Your task to perform on an android device: refresh tabs in the chrome app Image 0: 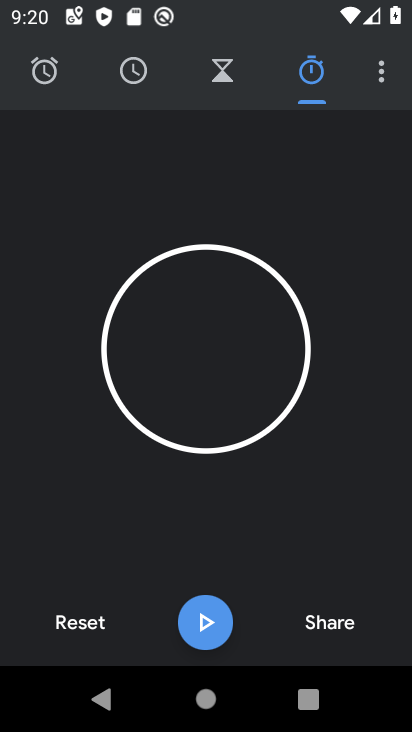
Step 0: press home button
Your task to perform on an android device: refresh tabs in the chrome app Image 1: 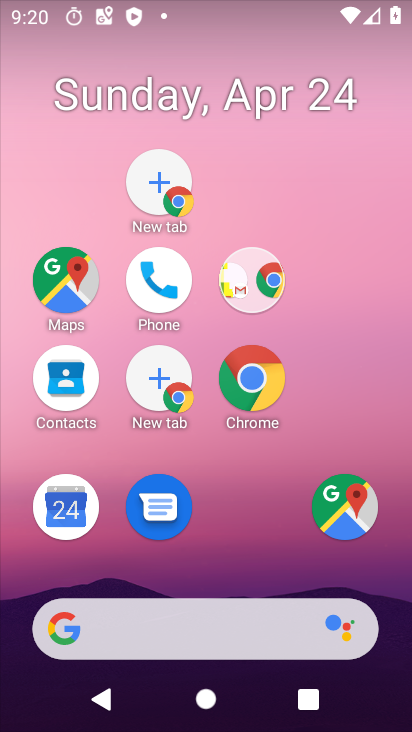
Step 1: drag from (255, 264) to (218, 3)
Your task to perform on an android device: refresh tabs in the chrome app Image 2: 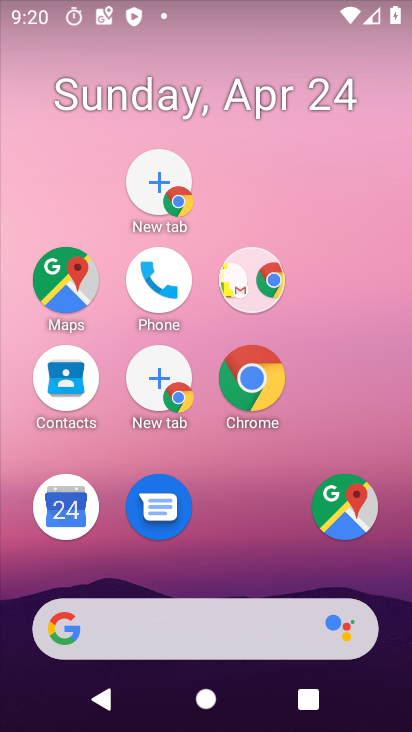
Step 2: click (257, 379)
Your task to perform on an android device: refresh tabs in the chrome app Image 3: 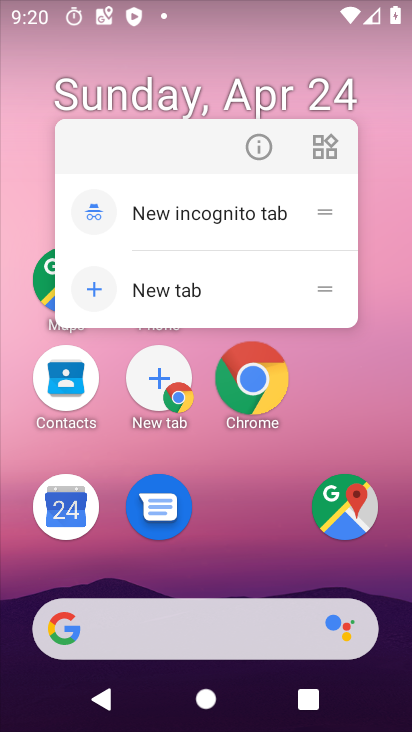
Step 3: click (257, 379)
Your task to perform on an android device: refresh tabs in the chrome app Image 4: 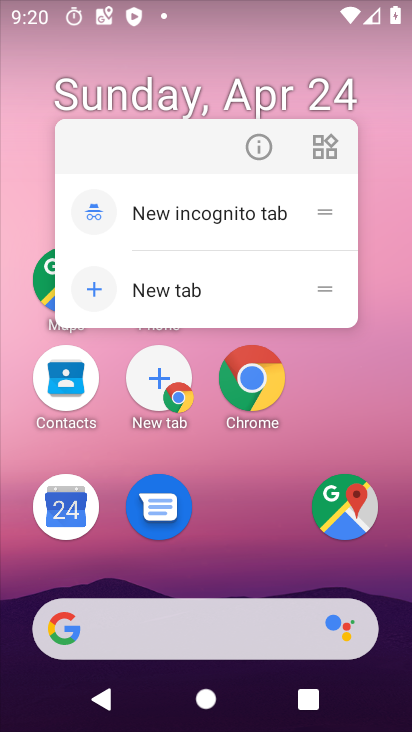
Step 4: click (178, 287)
Your task to perform on an android device: refresh tabs in the chrome app Image 5: 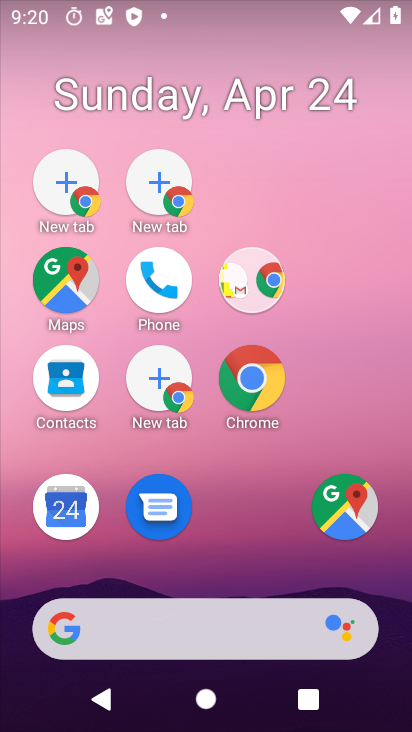
Step 5: drag from (234, 648) to (156, 32)
Your task to perform on an android device: refresh tabs in the chrome app Image 6: 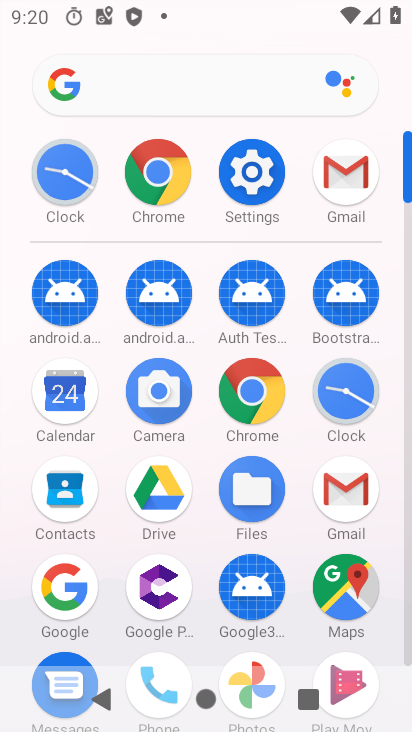
Step 6: click (161, 162)
Your task to perform on an android device: refresh tabs in the chrome app Image 7: 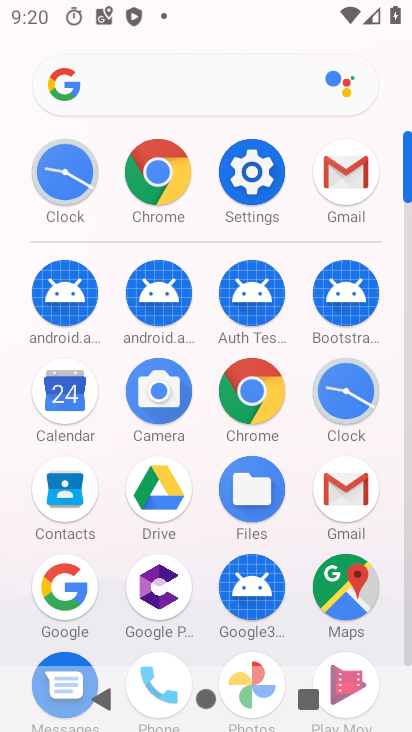
Step 7: click (162, 162)
Your task to perform on an android device: refresh tabs in the chrome app Image 8: 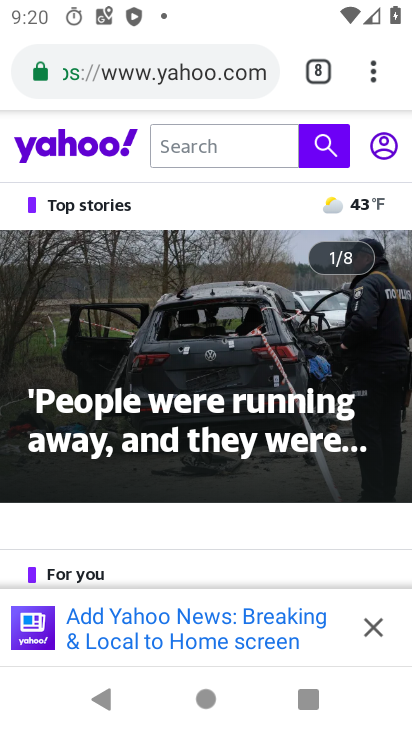
Step 8: drag from (371, 73) to (157, 420)
Your task to perform on an android device: refresh tabs in the chrome app Image 9: 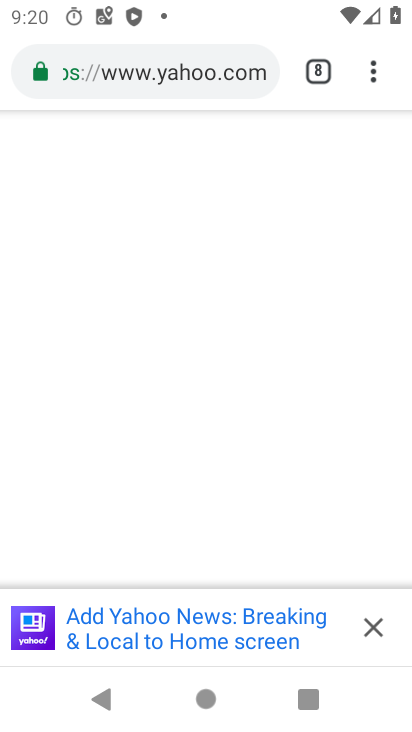
Step 9: click (157, 420)
Your task to perform on an android device: refresh tabs in the chrome app Image 10: 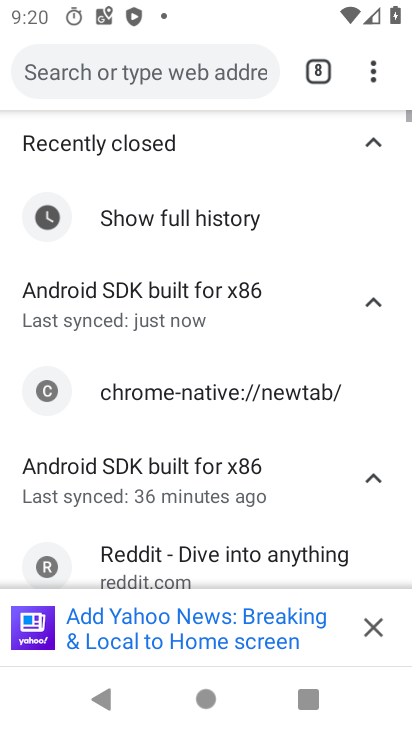
Step 10: click (157, 420)
Your task to perform on an android device: refresh tabs in the chrome app Image 11: 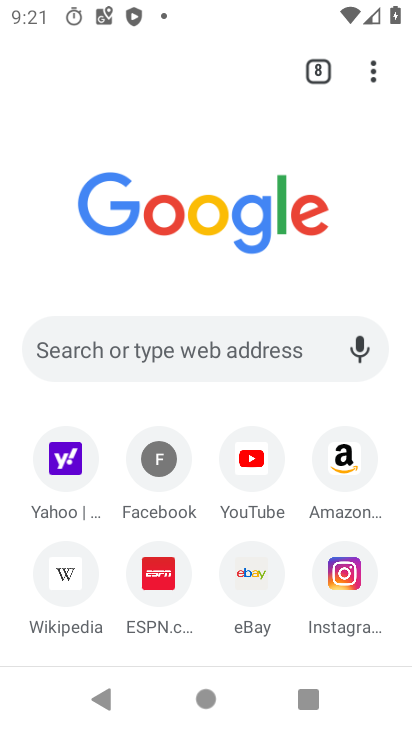
Step 11: task complete